Your task to perform on an android device: Go to display settings Image 0: 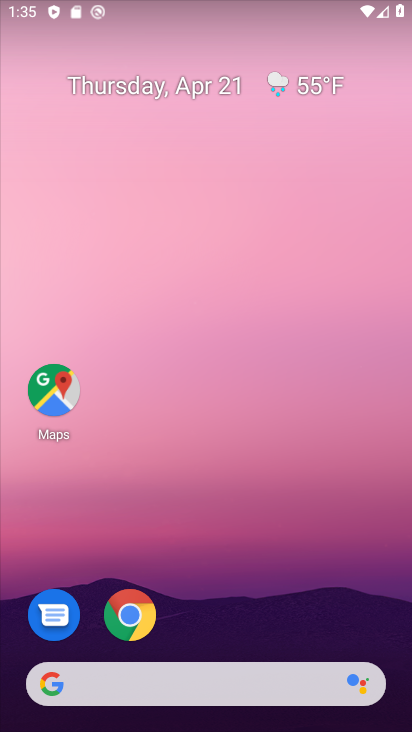
Step 0: drag from (197, 593) to (232, 214)
Your task to perform on an android device: Go to display settings Image 1: 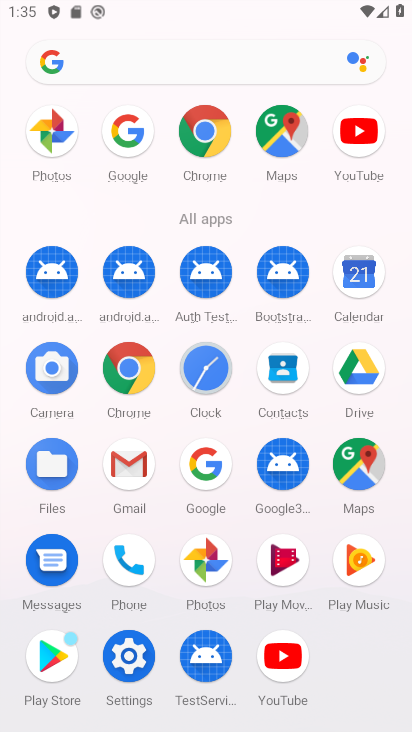
Step 1: click (118, 659)
Your task to perform on an android device: Go to display settings Image 2: 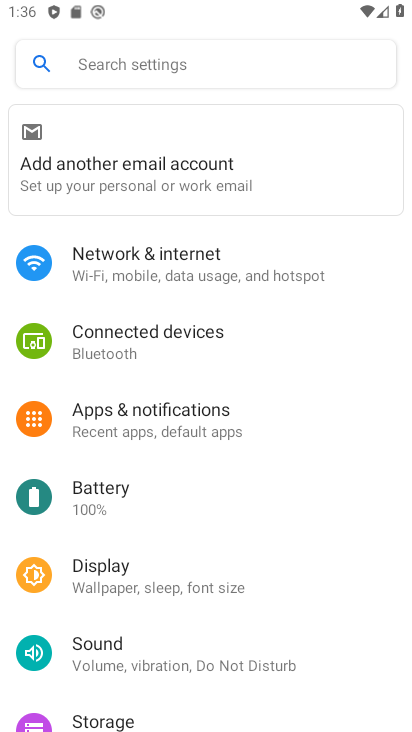
Step 2: click (81, 577)
Your task to perform on an android device: Go to display settings Image 3: 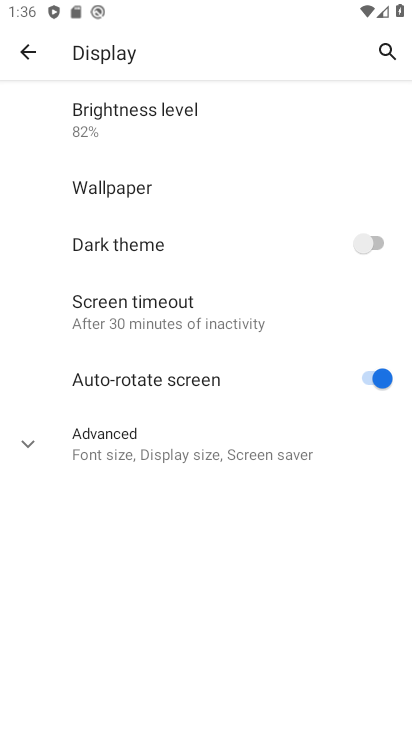
Step 3: click (111, 460)
Your task to perform on an android device: Go to display settings Image 4: 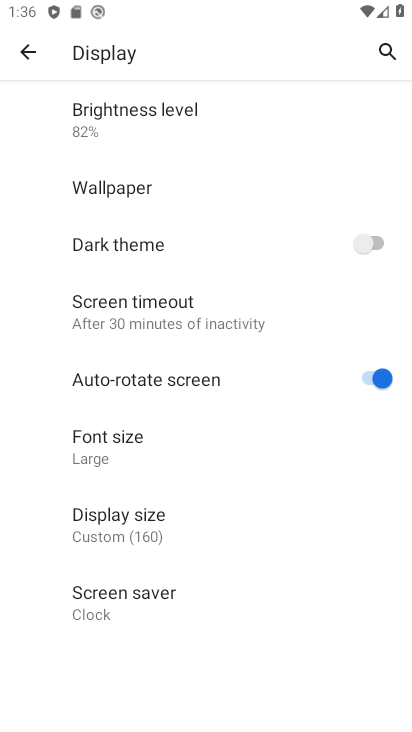
Step 4: task complete